Your task to perform on an android device: change notifications settings Image 0: 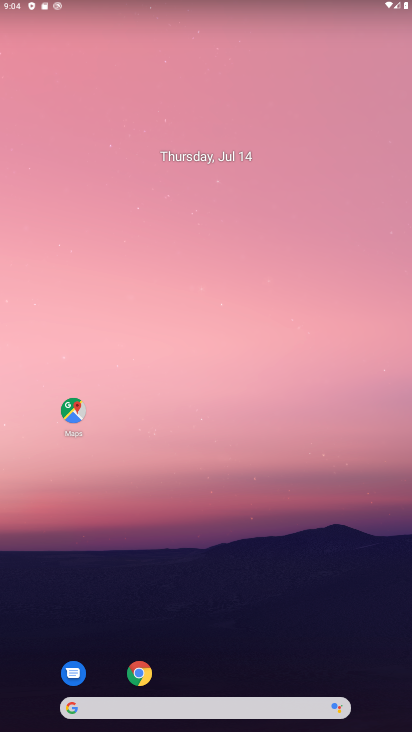
Step 0: drag from (238, 645) to (208, 75)
Your task to perform on an android device: change notifications settings Image 1: 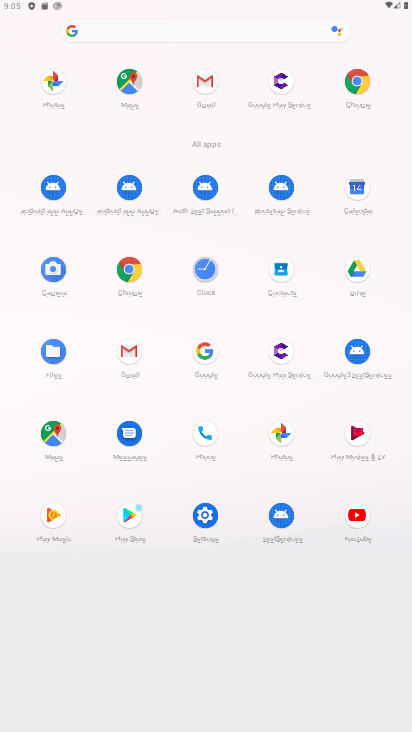
Step 1: click (202, 512)
Your task to perform on an android device: change notifications settings Image 2: 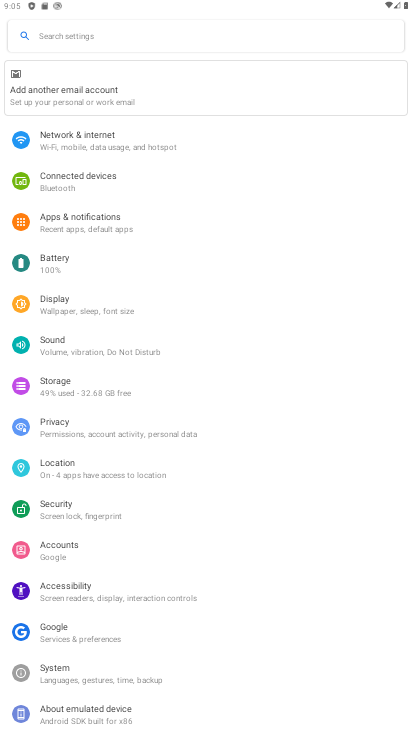
Step 2: click (168, 224)
Your task to perform on an android device: change notifications settings Image 3: 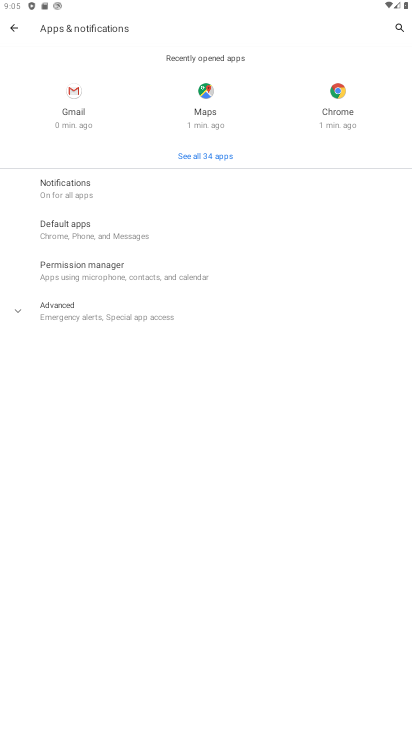
Step 3: click (142, 201)
Your task to perform on an android device: change notifications settings Image 4: 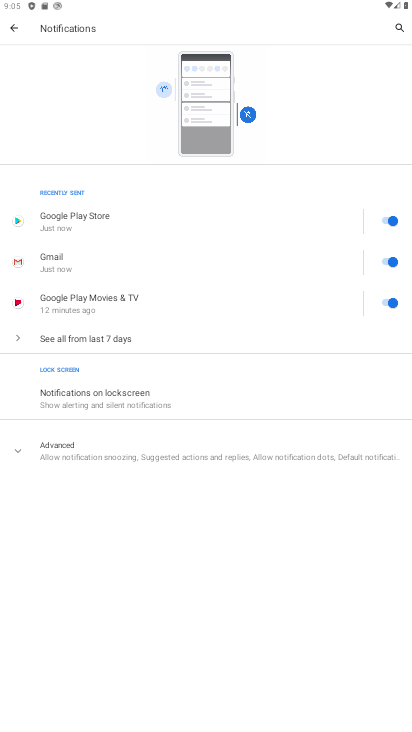
Step 4: task complete